Your task to perform on an android device: What's the price of the Hisense TV? Image 0: 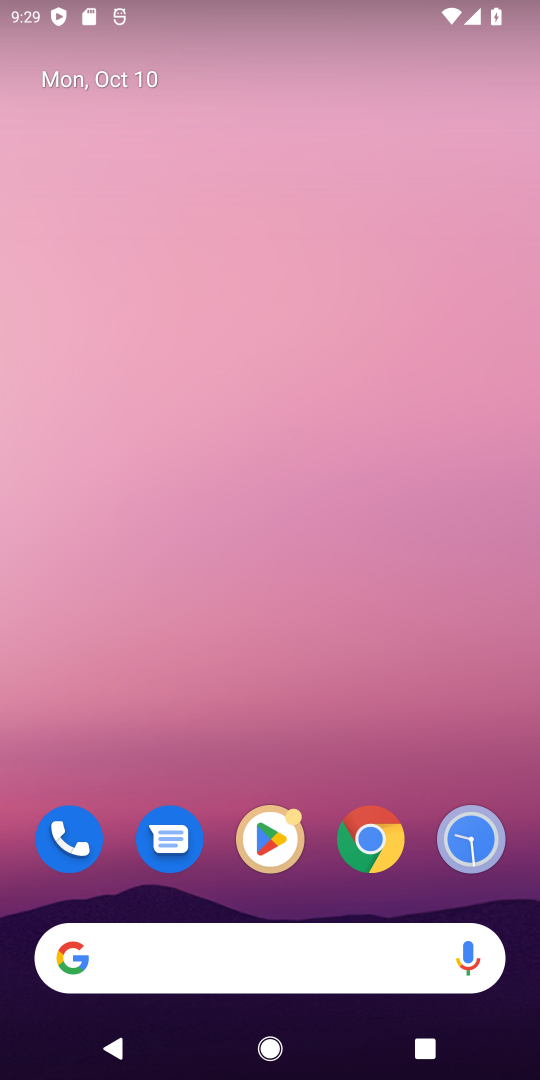
Step 0: drag from (319, 901) to (376, 48)
Your task to perform on an android device: What's the price of the Hisense TV? Image 1: 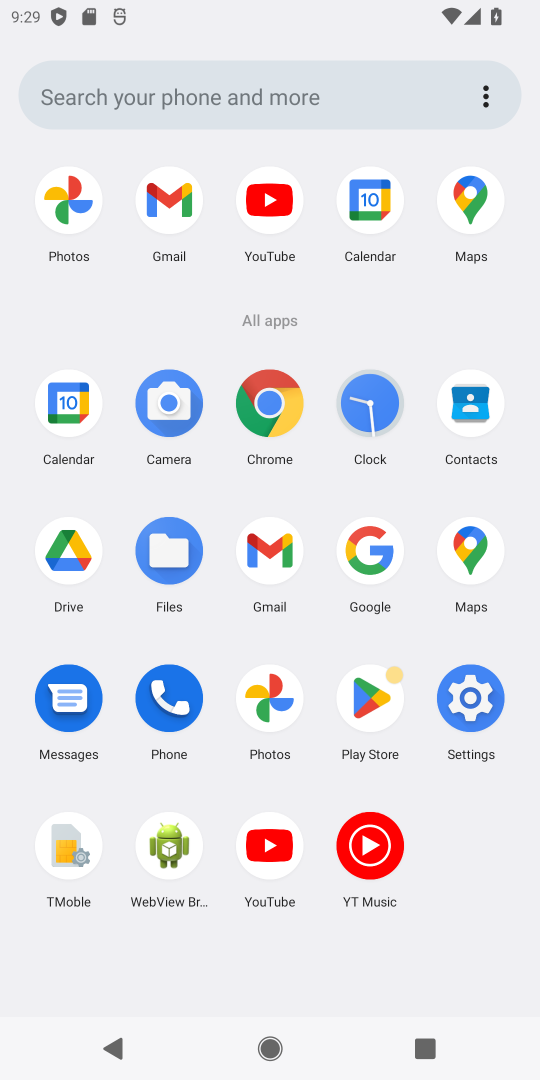
Step 1: click (281, 392)
Your task to perform on an android device: What's the price of the Hisense TV? Image 2: 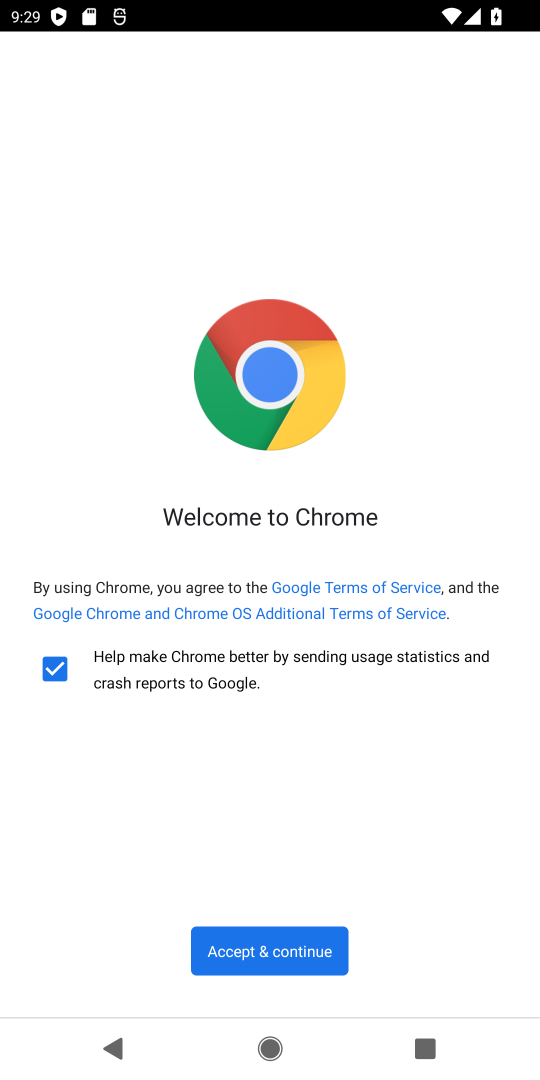
Step 2: click (268, 945)
Your task to perform on an android device: What's the price of the Hisense TV? Image 3: 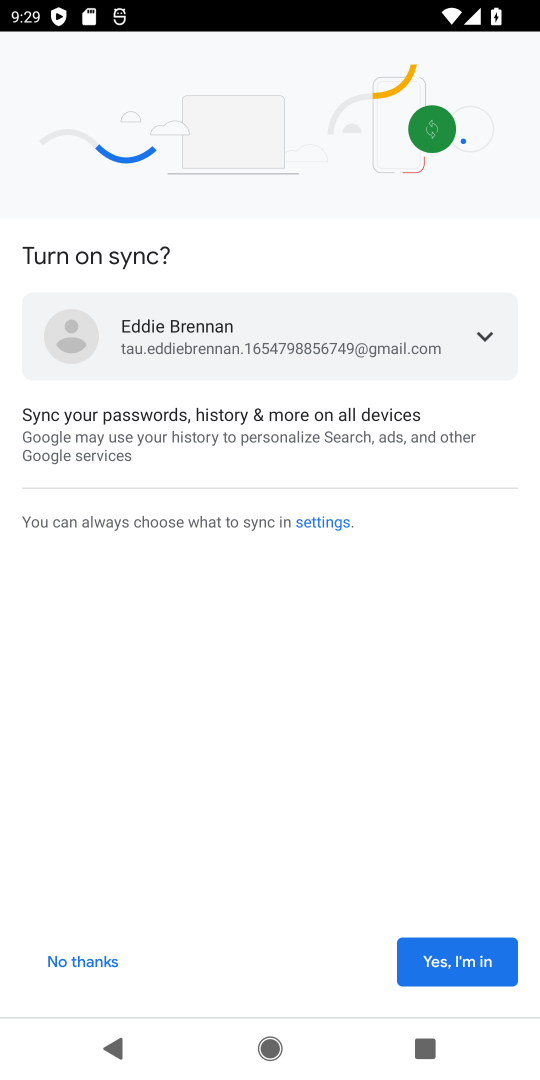
Step 3: click (430, 955)
Your task to perform on an android device: What's the price of the Hisense TV? Image 4: 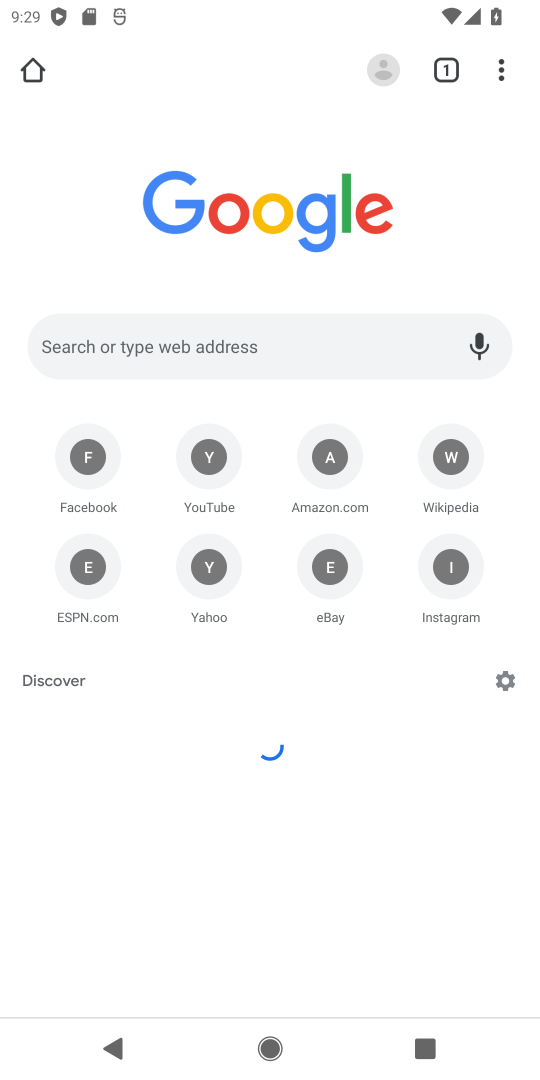
Step 4: click (484, 966)
Your task to perform on an android device: What's the price of the Hisense TV? Image 5: 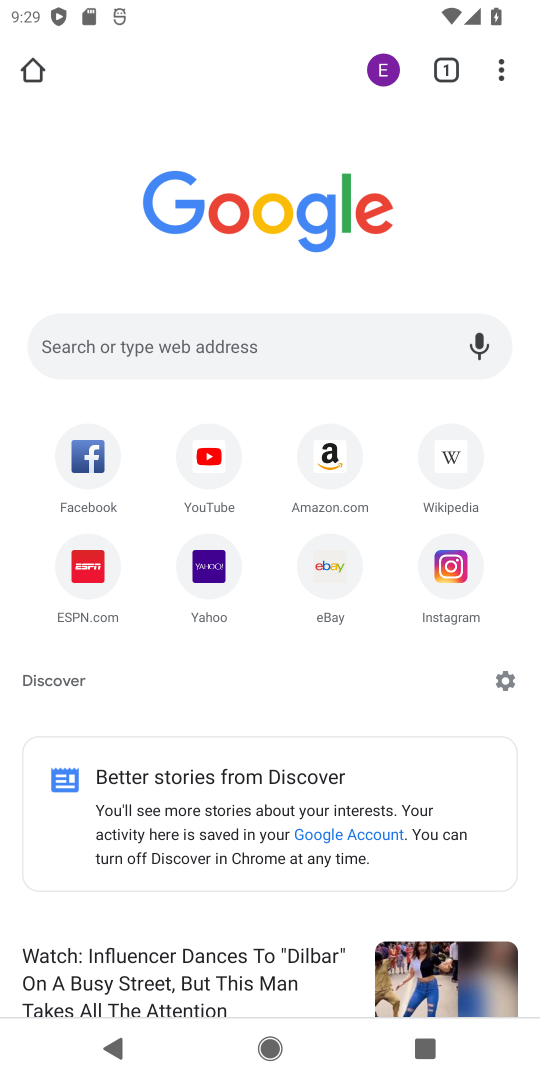
Step 5: click (275, 361)
Your task to perform on an android device: What's the price of the Hisense TV? Image 6: 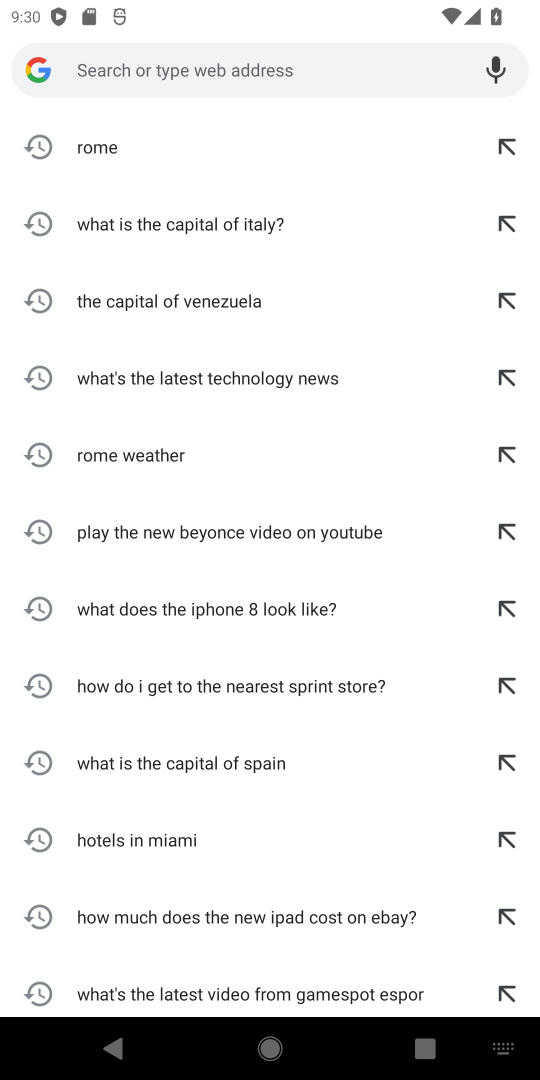
Step 6: type "Hisense TV price"
Your task to perform on an android device: What's the price of the Hisense TV? Image 7: 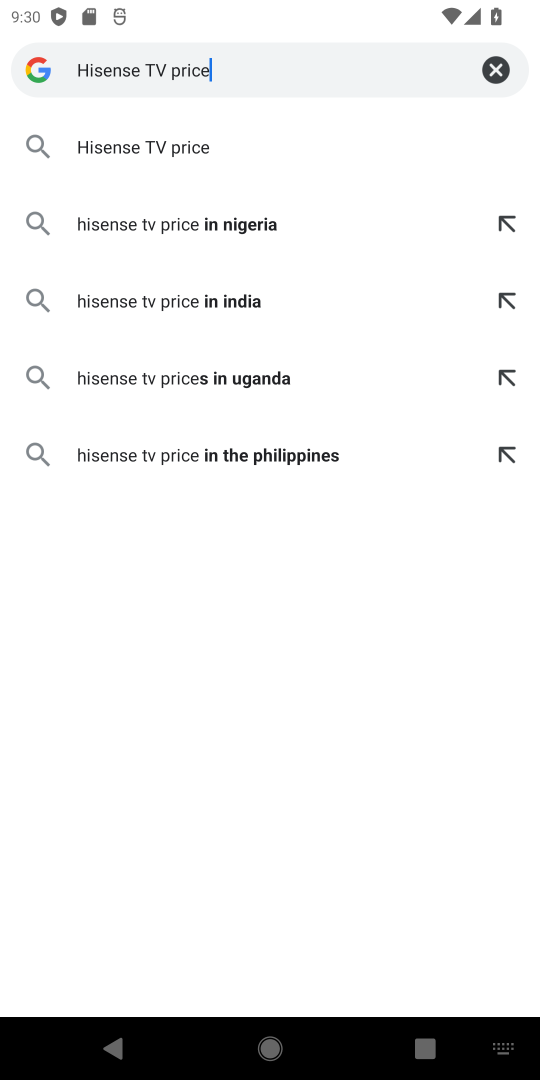
Step 7: press enter
Your task to perform on an android device: What's the price of the Hisense TV? Image 8: 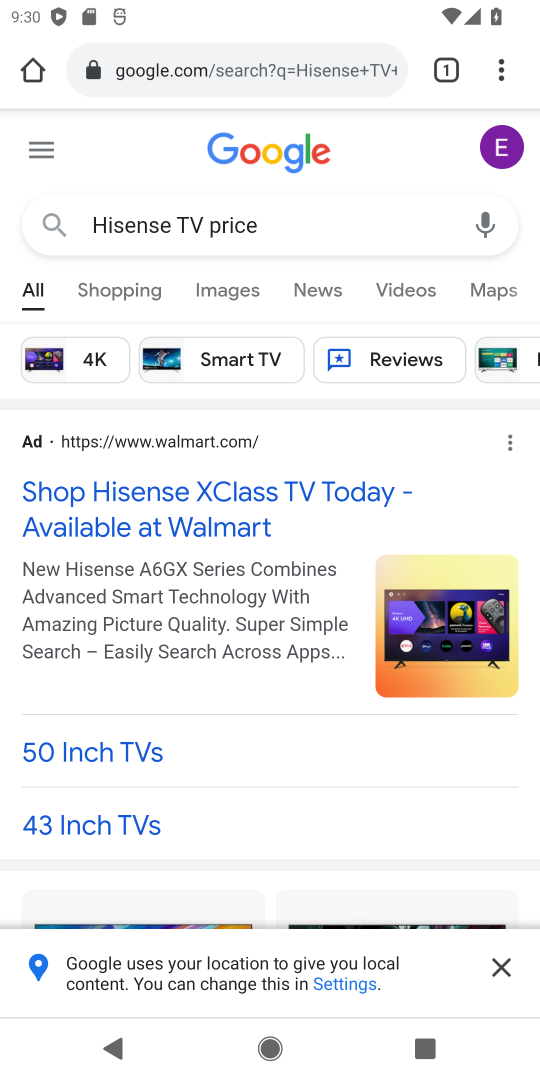
Step 8: task complete